Your task to perform on an android device: Is it going to rain tomorrow? Image 0: 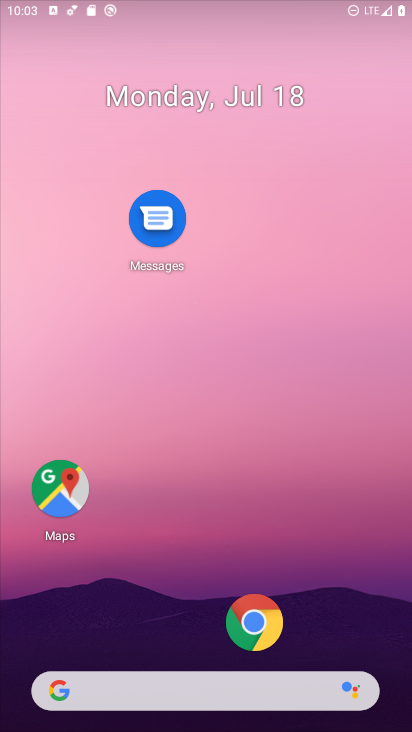
Step 0: drag from (222, 673) to (220, 223)
Your task to perform on an android device: Is it going to rain tomorrow? Image 1: 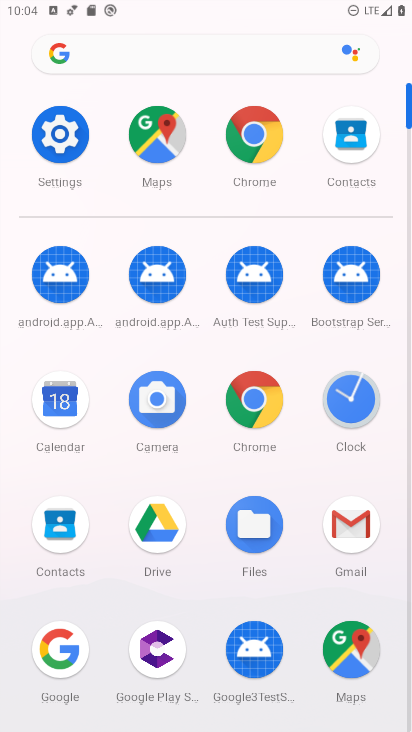
Step 1: drag from (253, 562) to (262, 243)
Your task to perform on an android device: Is it going to rain tomorrow? Image 2: 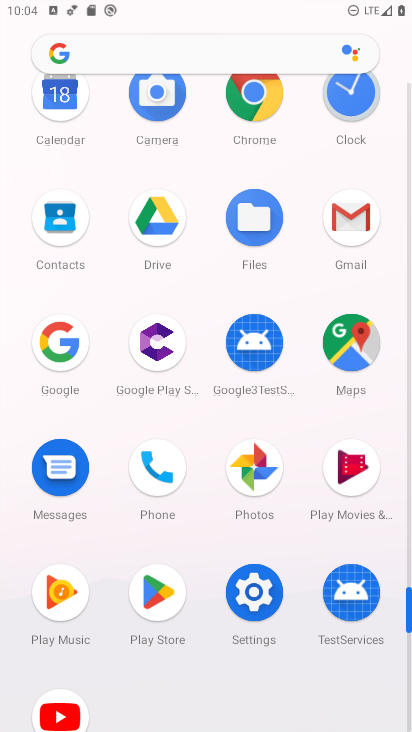
Step 2: click (43, 391)
Your task to perform on an android device: Is it going to rain tomorrow? Image 3: 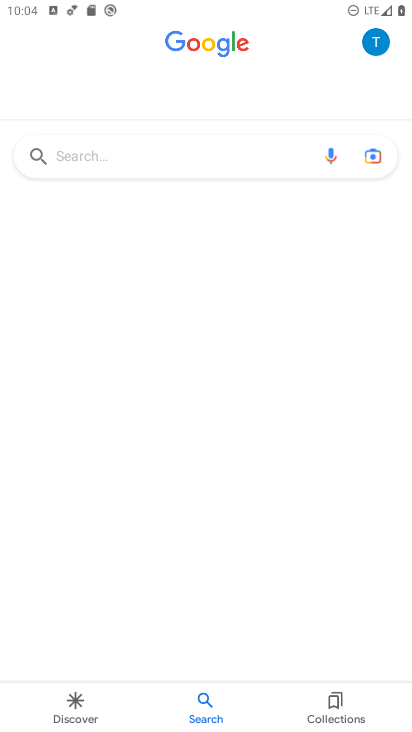
Step 3: click (145, 166)
Your task to perform on an android device: Is it going to rain tomorrow? Image 4: 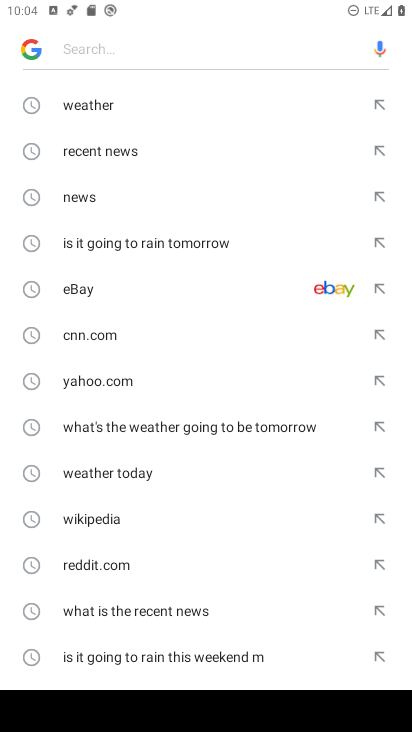
Step 4: click (189, 103)
Your task to perform on an android device: Is it going to rain tomorrow? Image 5: 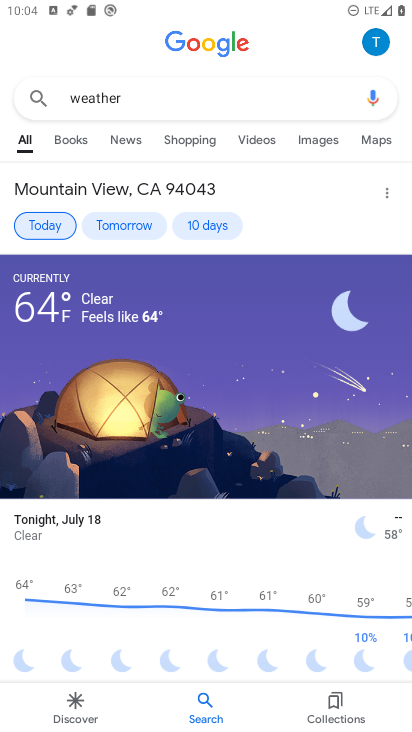
Step 5: click (131, 231)
Your task to perform on an android device: Is it going to rain tomorrow? Image 6: 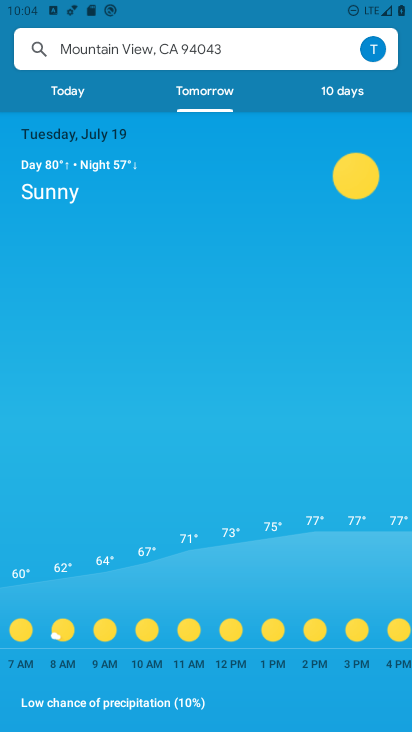
Step 6: task complete